Your task to perform on an android device: Show me popular videos on Youtube Image 0: 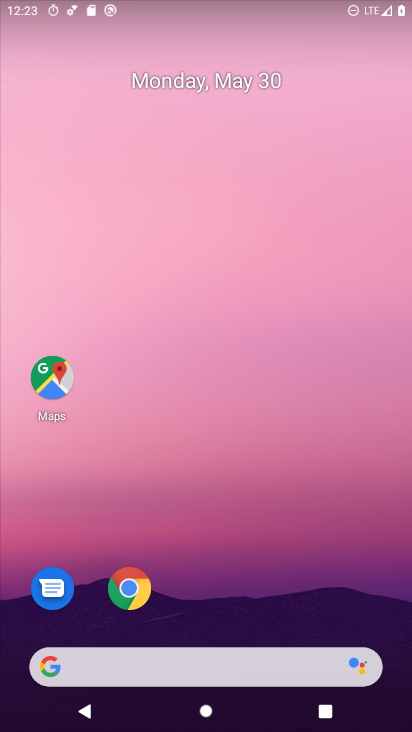
Step 0: drag from (253, 546) to (244, 222)
Your task to perform on an android device: Show me popular videos on Youtube Image 1: 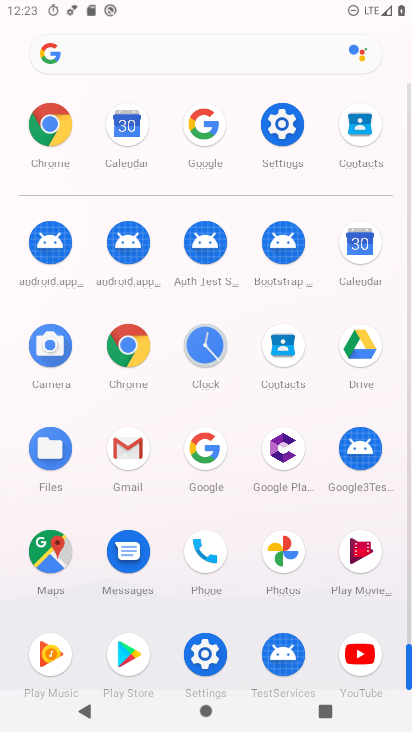
Step 1: click (349, 666)
Your task to perform on an android device: Show me popular videos on Youtube Image 2: 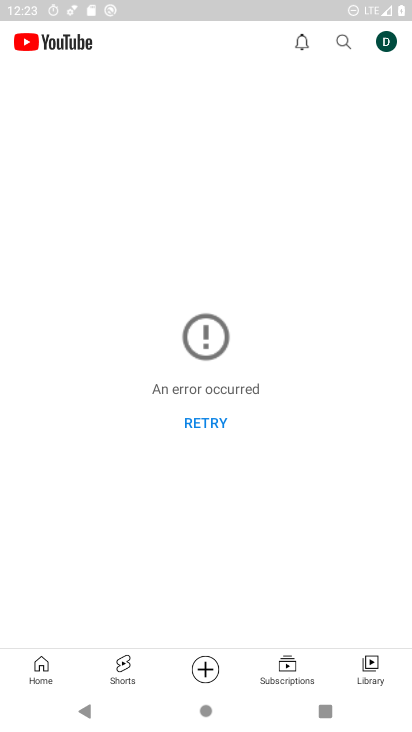
Step 2: click (58, 672)
Your task to perform on an android device: Show me popular videos on Youtube Image 3: 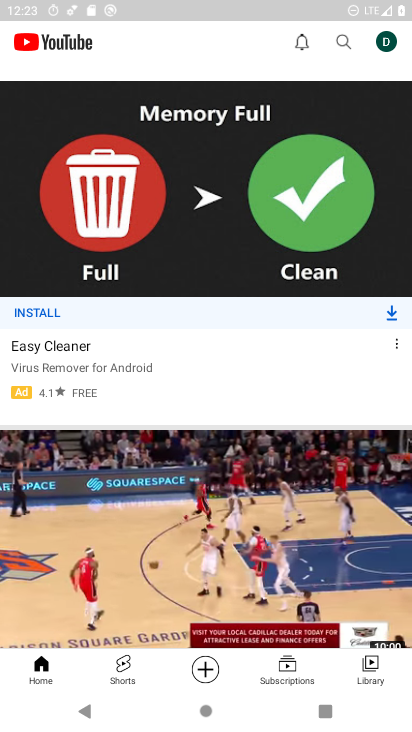
Step 3: drag from (112, 198) to (135, 591)
Your task to perform on an android device: Show me popular videos on Youtube Image 4: 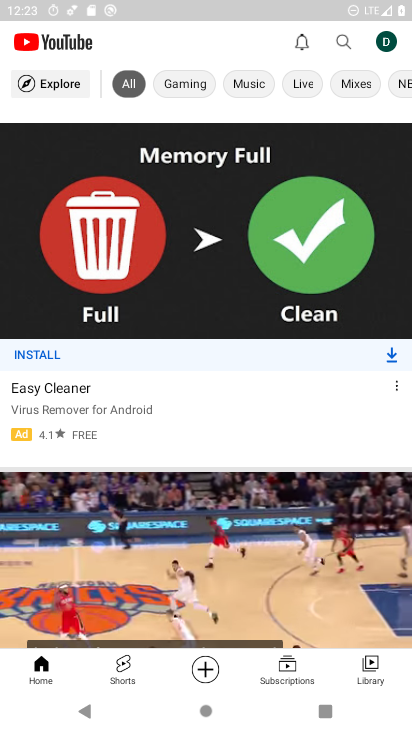
Step 4: click (43, 88)
Your task to perform on an android device: Show me popular videos on Youtube Image 5: 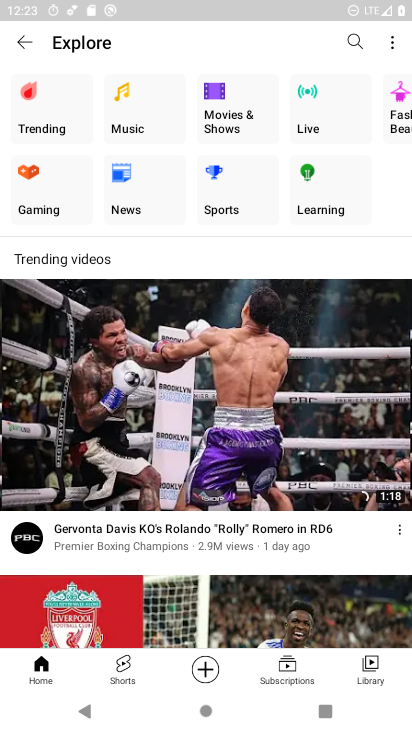
Step 5: click (58, 107)
Your task to perform on an android device: Show me popular videos on Youtube Image 6: 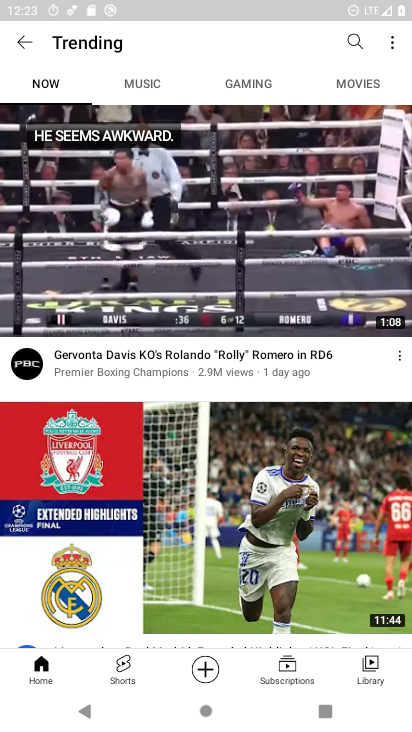
Step 6: task complete